Your task to perform on an android device: change keyboard looks Image 0: 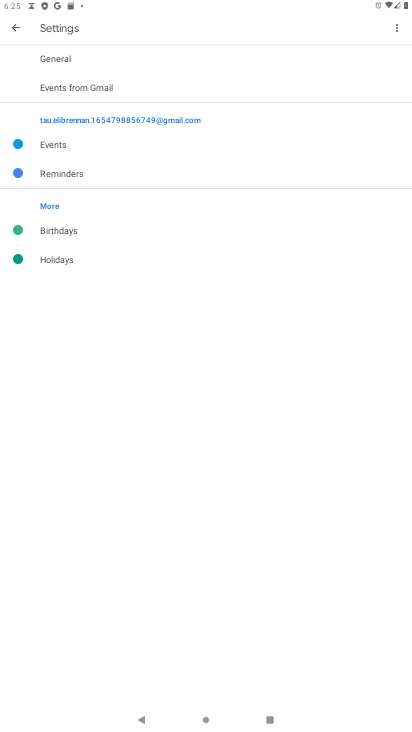
Step 0: press home button
Your task to perform on an android device: change keyboard looks Image 1: 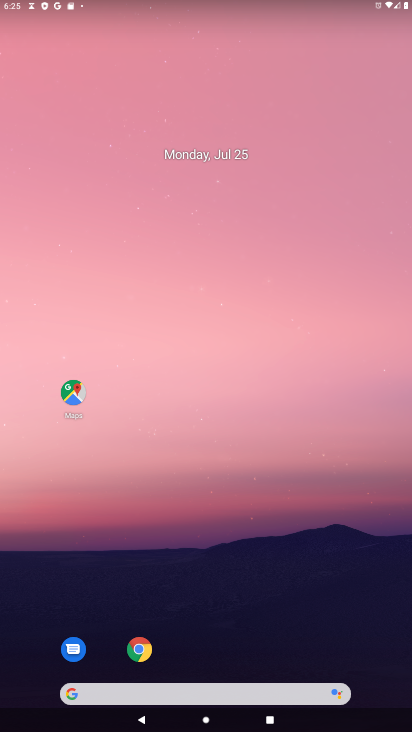
Step 1: drag from (175, 684) to (330, 0)
Your task to perform on an android device: change keyboard looks Image 2: 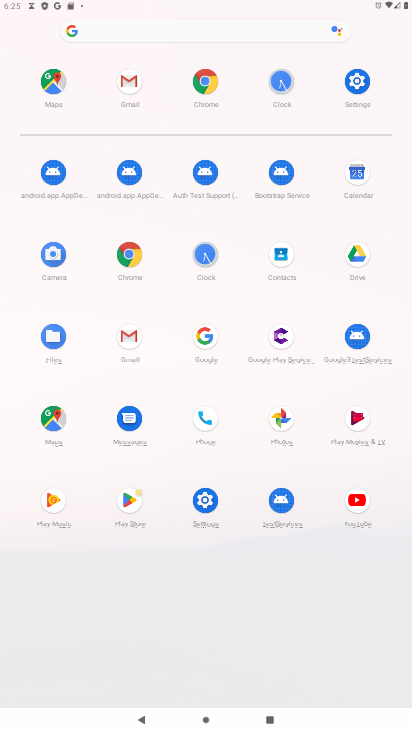
Step 2: click (365, 68)
Your task to perform on an android device: change keyboard looks Image 3: 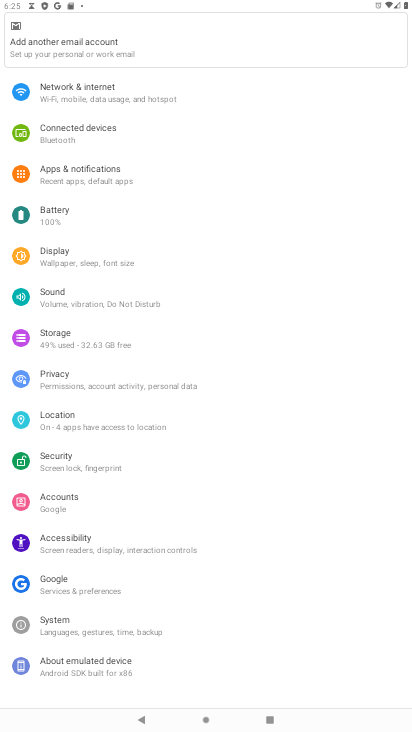
Step 3: click (105, 583)
Your task to perform on an android device: change keyboard looks Image 4: 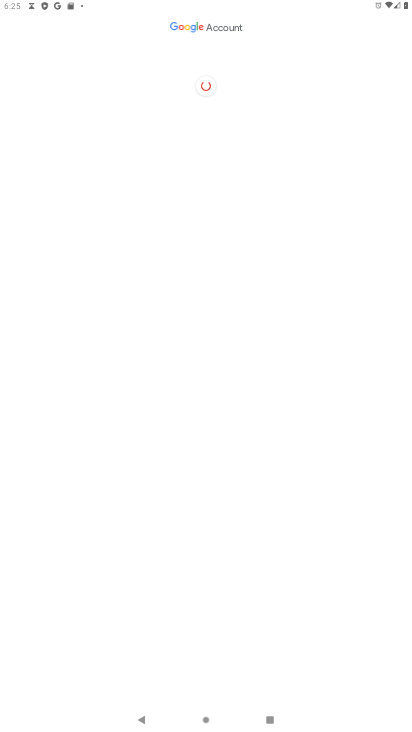
Step 4: press back button
Your task to perform on an android device: change keyboard looks Image 5: 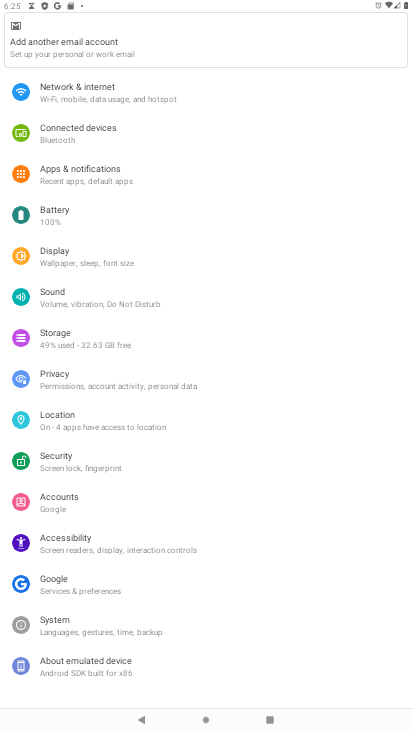
Step 5: click (142, 637)
Your task to perform on an android device: change keyboard looks Image 6: 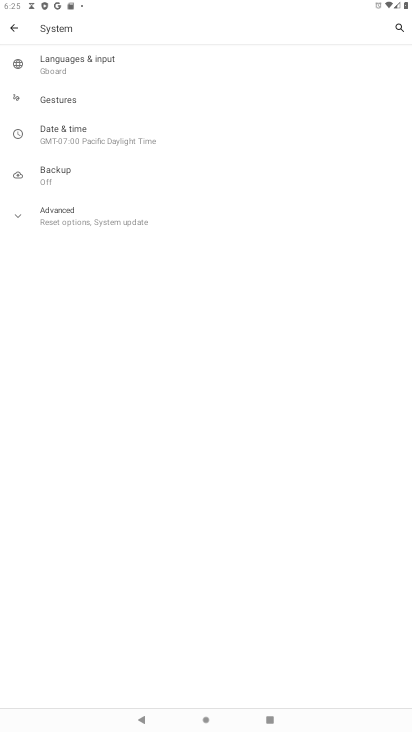
Step 6: click (117, 53)
Your task to perform on an android device: change keyboard looks Image 7: 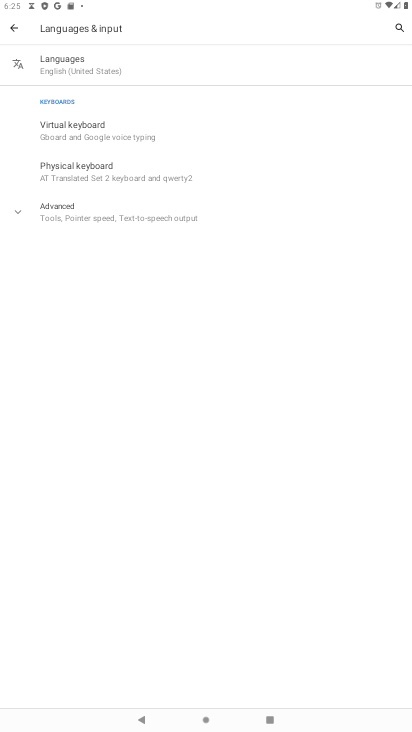
Step 7: click (128, 139)
Your task to perform on an android device: change keyboard looks Image 8: 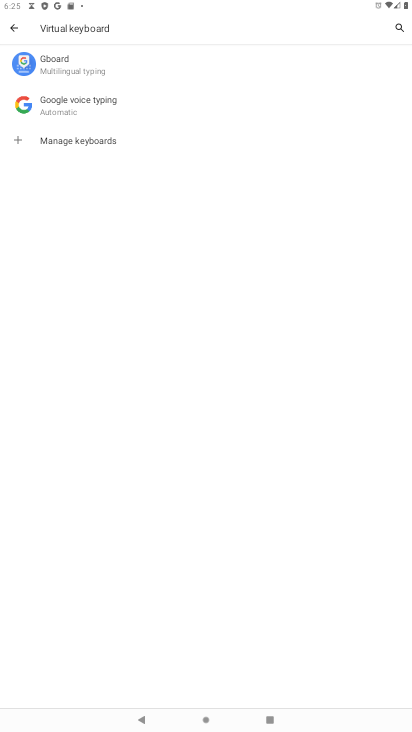
Step 8: click (91, 66)
Your task to perform on an android device: change keyboard looks Image 9: 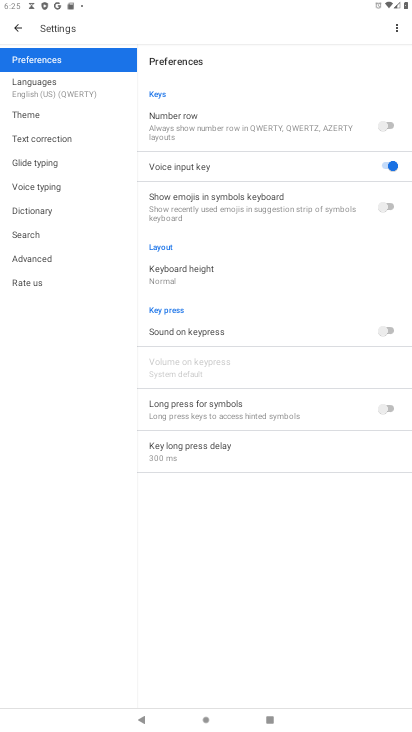
Step 9: click (45, 119)
Your task to perform on an android device: change keyboard looks Image 10: 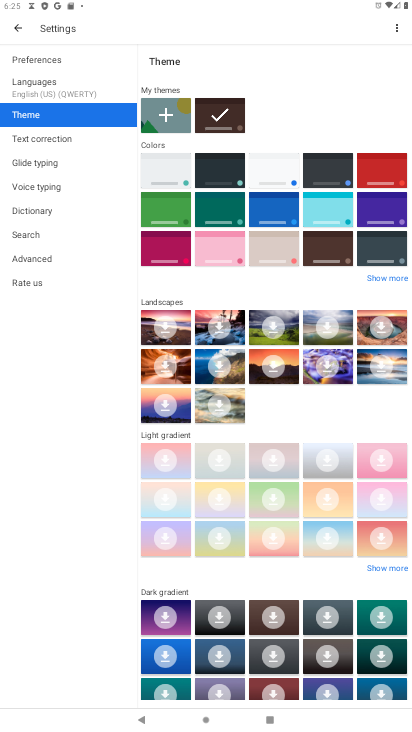
Step 10: click (276, 216)
Your task to perform on an android device: change keyboard looks Image 11: 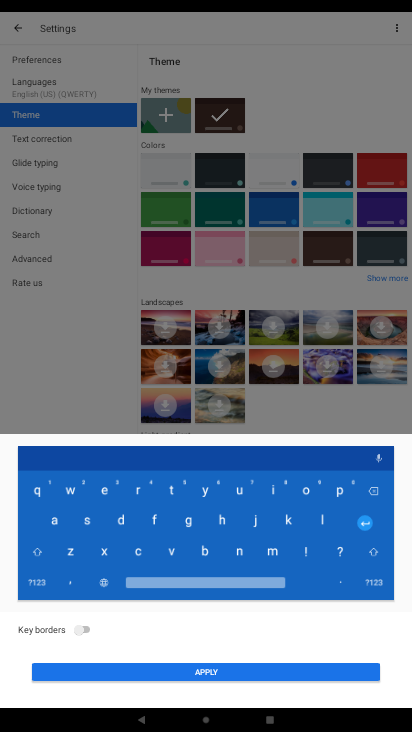
Step 11: task complete